Your task to perform on an android device: turn off airplane mode Image 0: 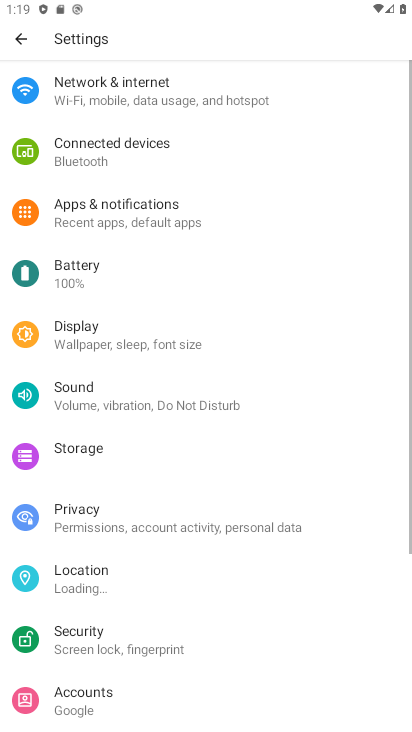
Step 0: drag from (373, 645) to (274, 80)
Your task to perform on an android device: turn off airplane mode Image 1: 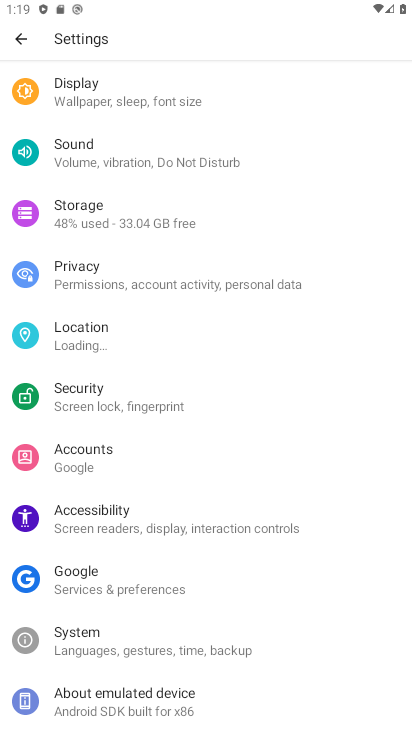
Step 1: task complete